Your task to perform on an android device: Check the weather Image 0: 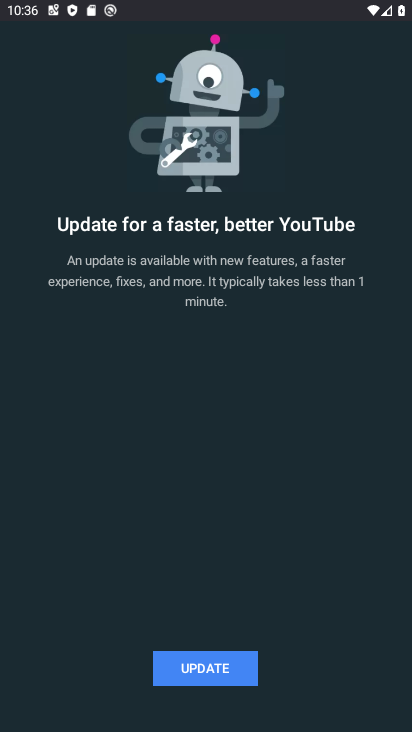
Step 0: press home button
Your task to perform on an android device: Check the weather Image 1: 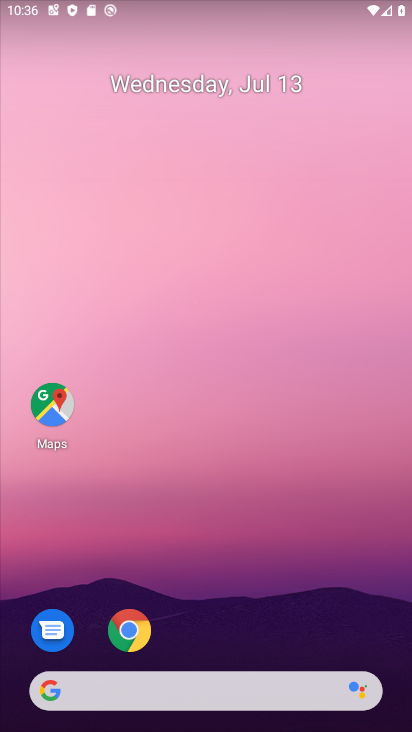
Step 1: drag from (293, 510) to (78, 41)
Your task to perform on an android device: Check the weather Image 2: 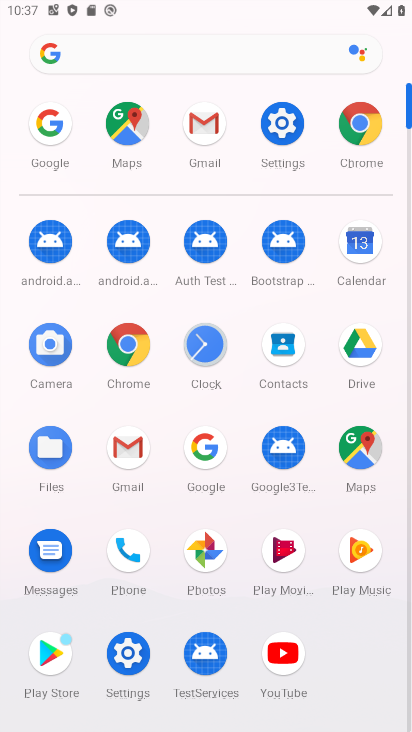
Step 2: click (195, 460)
Your task to perform on an android device: Check the weather Image 3: 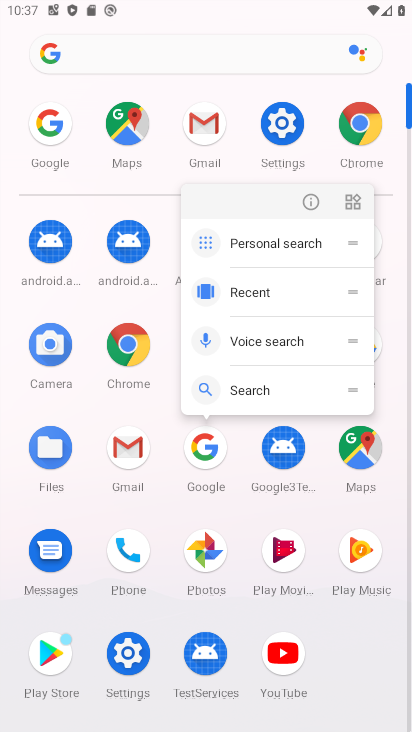
Step 3: click (215, 446)
Your task to perform on an android device: Check the weather Image 4: 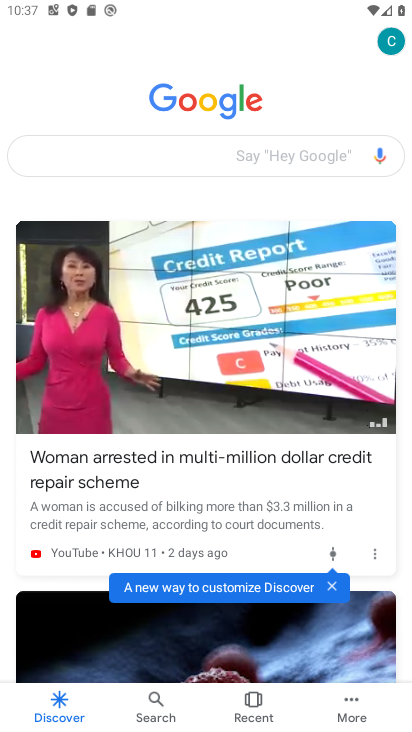
Step 4: click (230, 149)
Your task to perform on an android device: Check the weather Image 5: 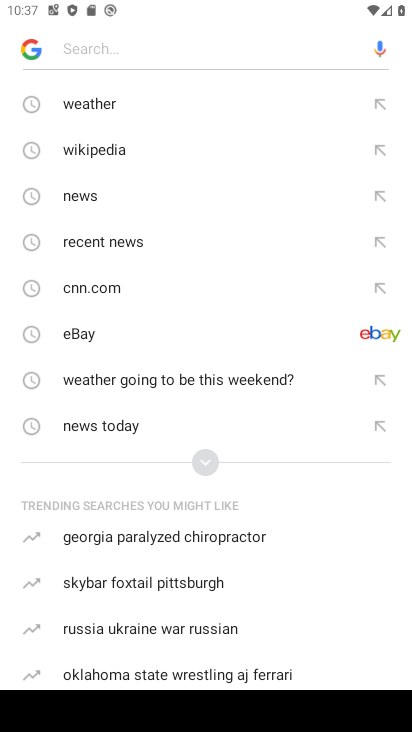
Step 5: click (81, 116)
Your task to perform on an android device: Check the weather Image 6: 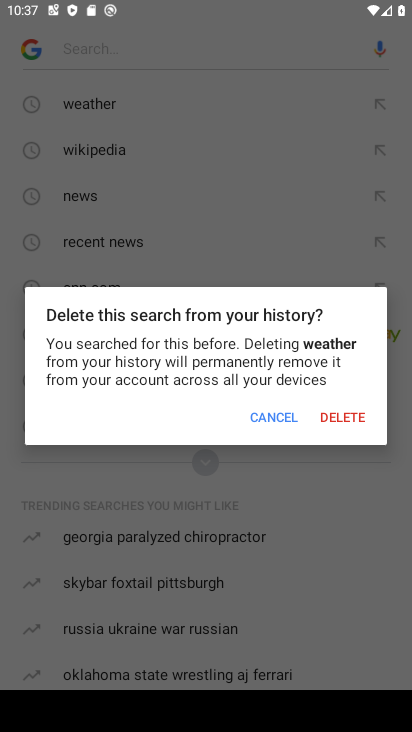
Step 6: click (272, 420)
Your task to perform on an android device: Check the weather Image 7: 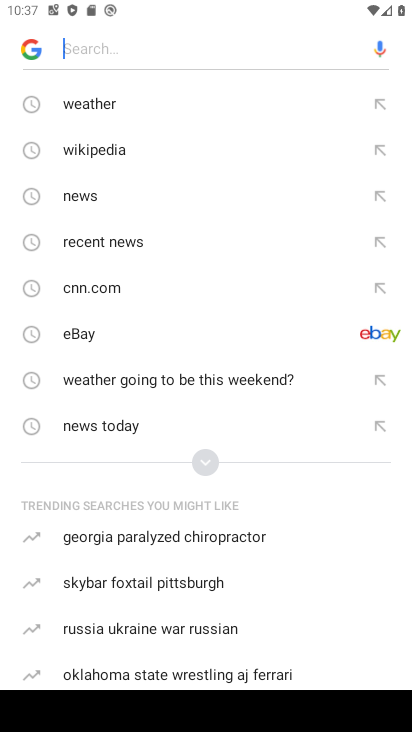
Step 7: click (83, 97)
Your task to perform on an android device: Check the weather Image 8: 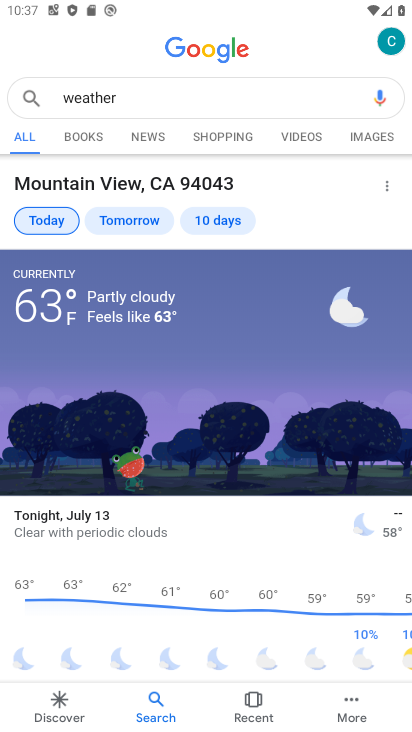
Step 8: task complete